Your task to perform on an android device: Turn off the flashlight Image 0: 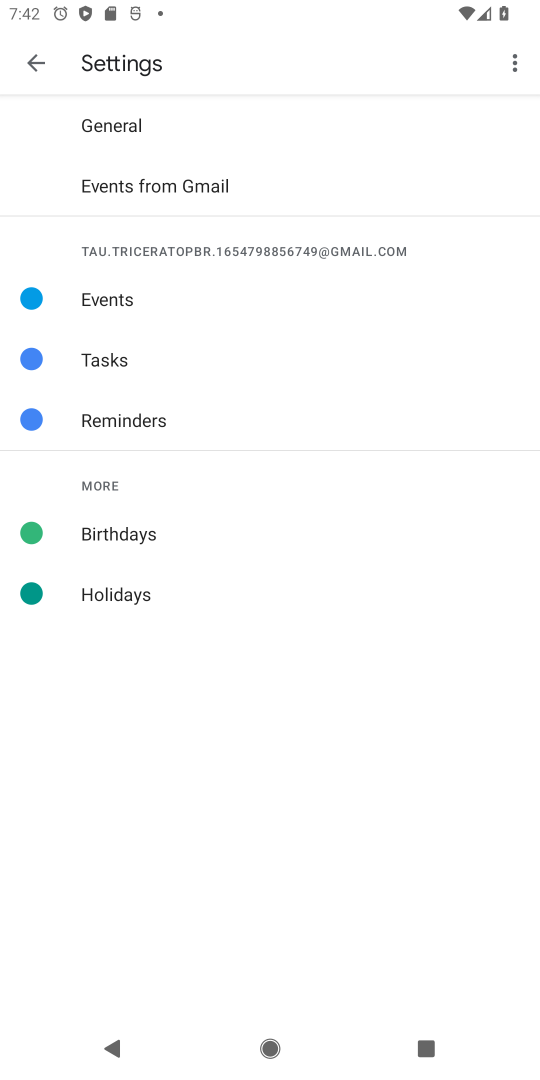
Step 0: press back button
Your task to perform on an android device: Turn off the flashlight Image 1: 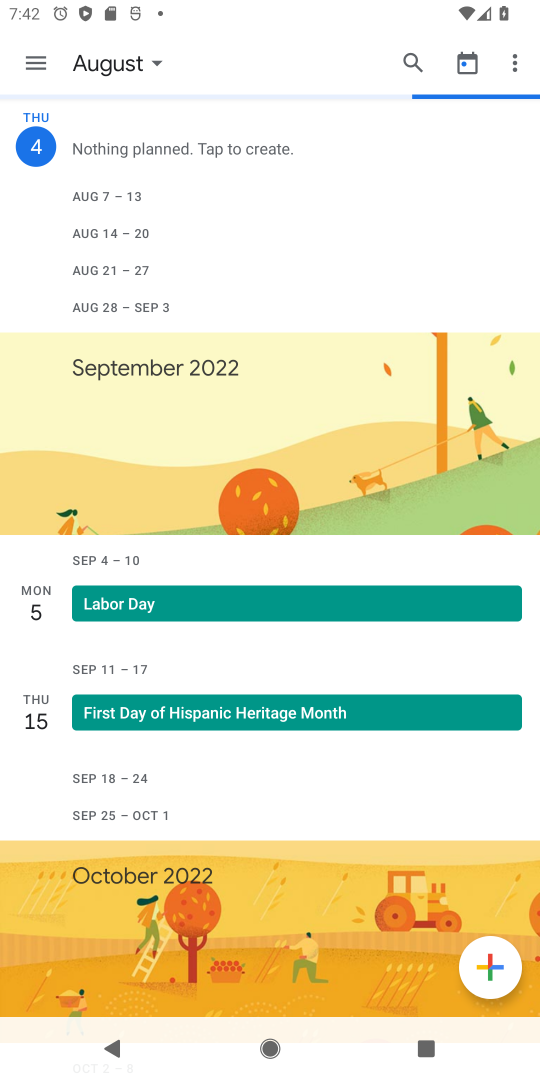
Step 1: press back button
Your task to perform on an android device: Turn off the flashlight Image 2: 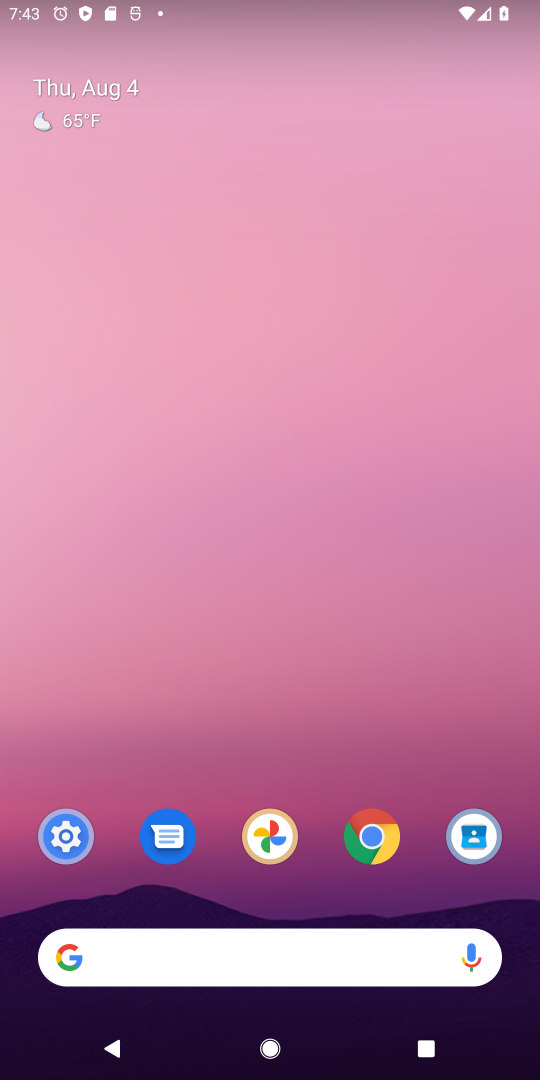
Step 2: click (69, 827)
Your task to perform on an android device: Turn off the flashlight Image 3: 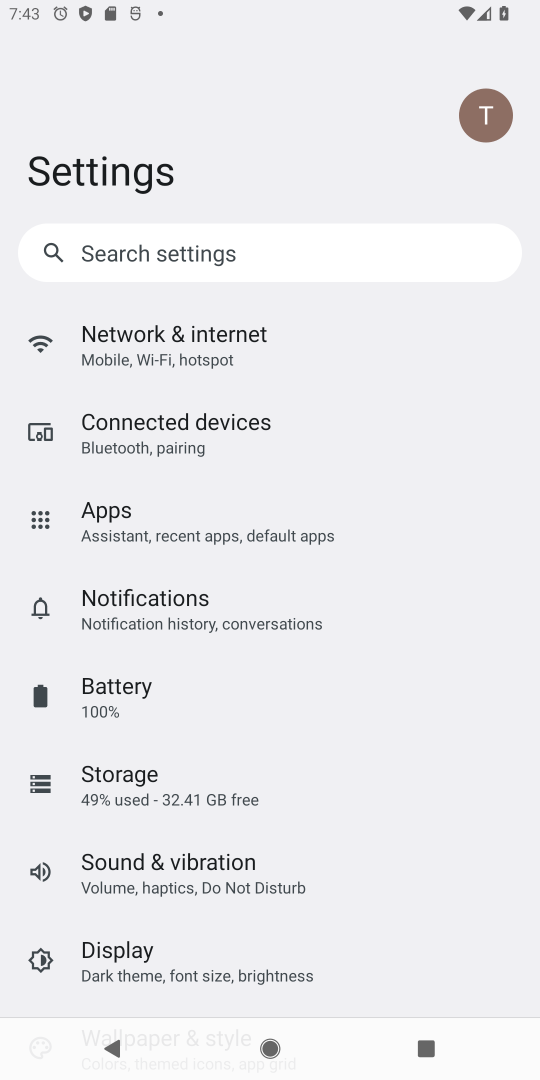
Step 3: click (141, 241)
Your task to perform on an android device: Turn off the flashlight Image 4: 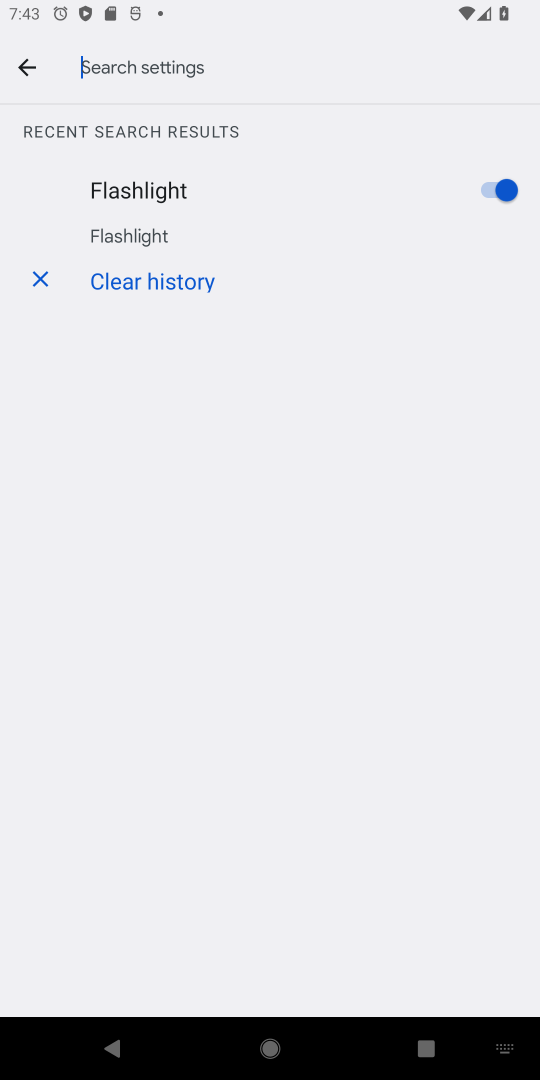
Step 4: type "flashlight"
Your task to perform on an android device: Turn off the flashlight Image 5: 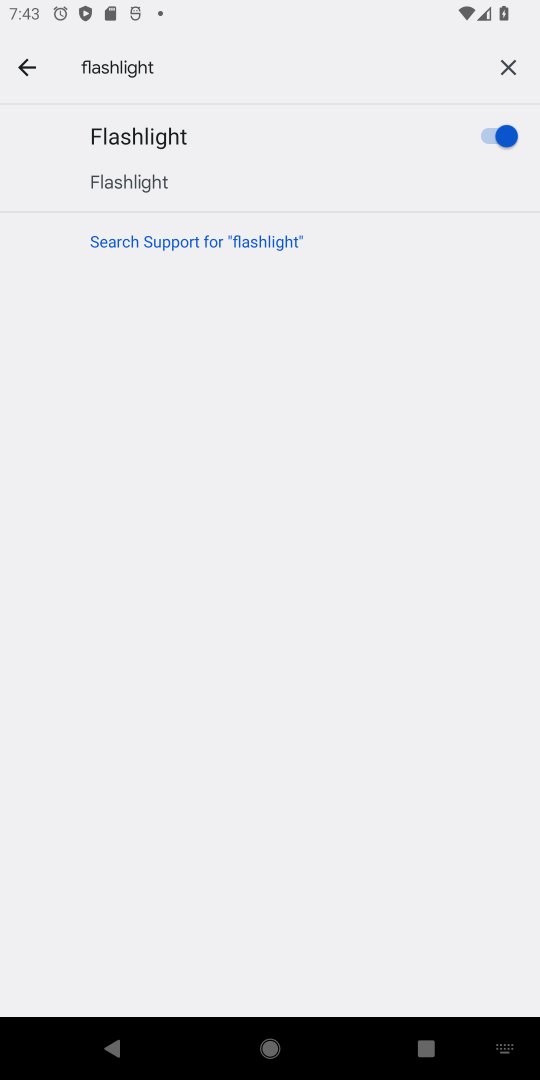
Step 5: click (507, 129)
Your task to perform on an android device: Turn off the flashlight Image 6: 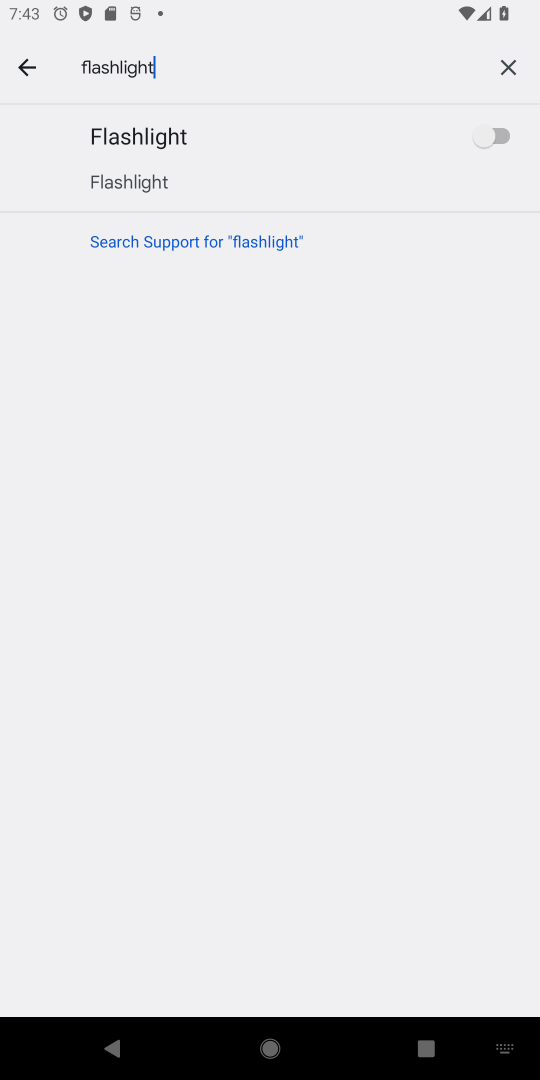
Step 6: task complete